Your task to perform on an android device: toggle airplane mode Image 0: 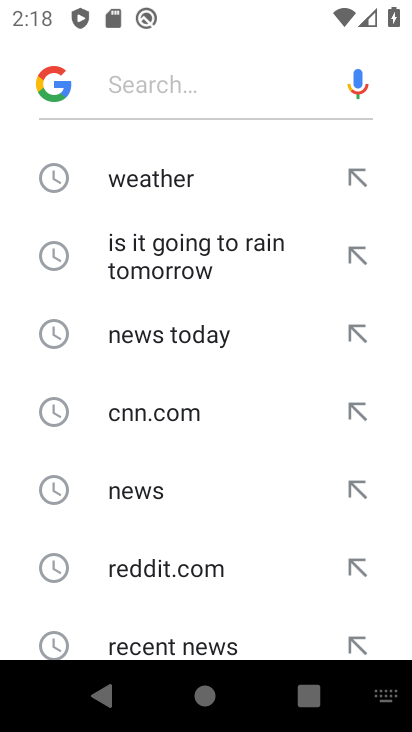
Step 0: press home button
Your task to perform on an android device: toggle airplane mode Image 1: 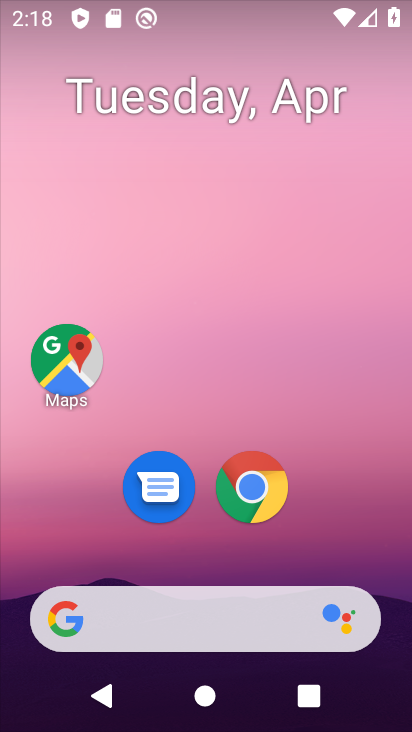
Step 1: drag from (335, 538) to (355, 92)
Your task to perform on an android device: toggle airplane mode Image 2: 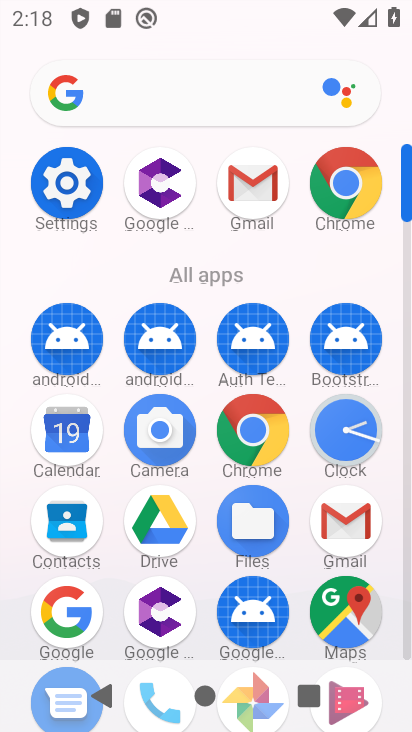
Step 2: click (68, 187)
Your task to perform on an android device: toggle airplane mode Image 3: 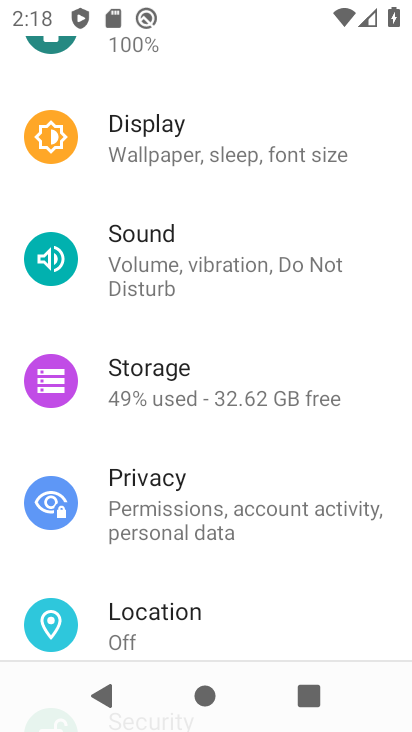
Step 3: drag from (234, 175) to (199, 591)
Your task to perform on an android device: toggle airplane mode Image 4: 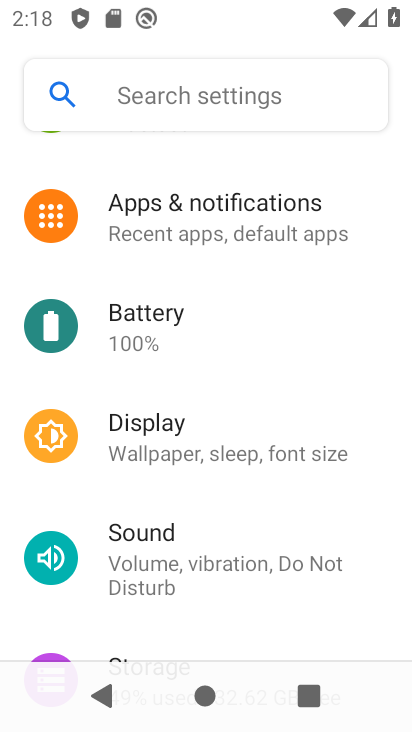
Step 4: drag from (213, 278) to (213, 522)
Your task to perform on an android device: toggle airplane mode Image 5: 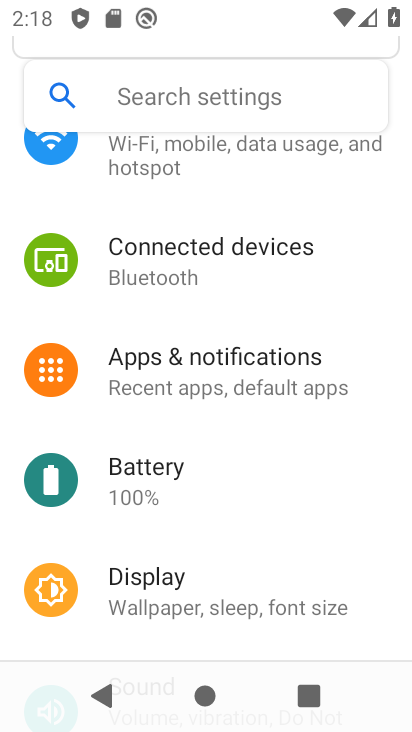
Step 5: click (199, 165)
Your task to perform on an android device: toggle airplane mode Image 6: 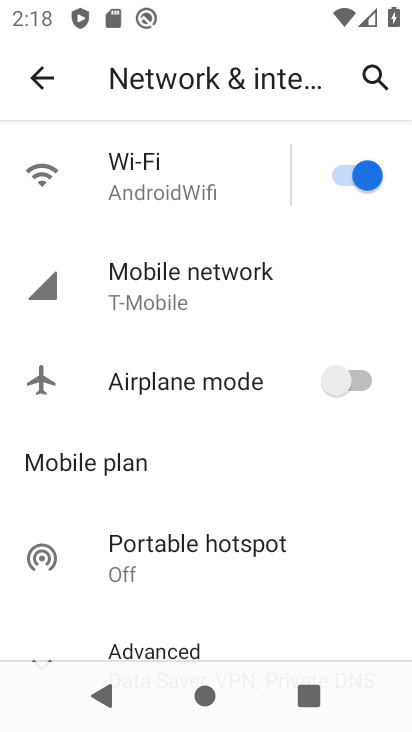
Step 6: click (298, 383)
Your task to perform on an android device: toggle airplane mode Image 7: 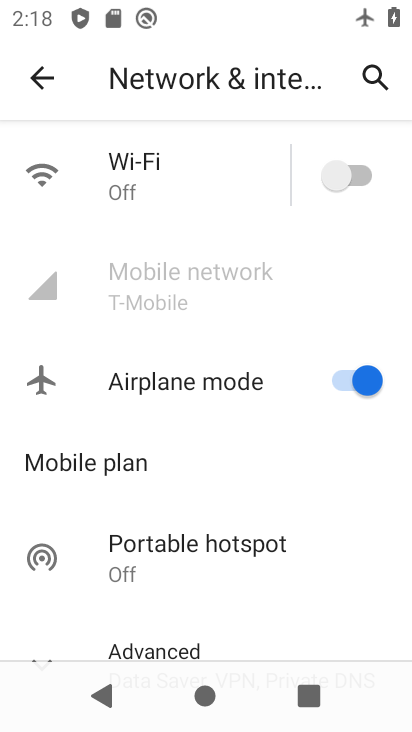
Step 7: task complete